Your task to perform on an android device: turn on sleep mode Image 0: 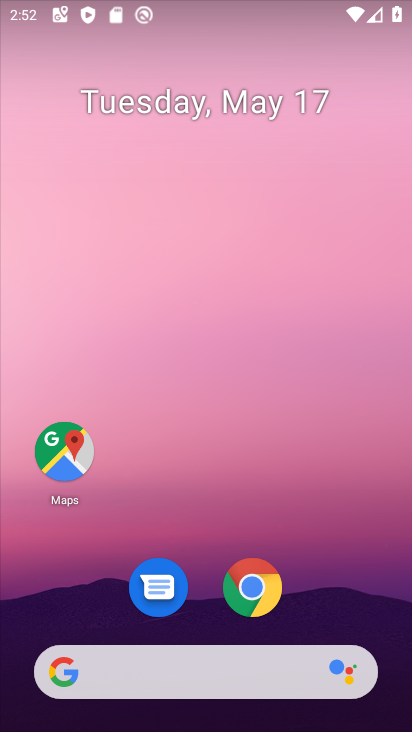
Step 0: drag from (334, 622) to (293, 1)
Your task to perform on an android device: turn on sleep mode Image 1: 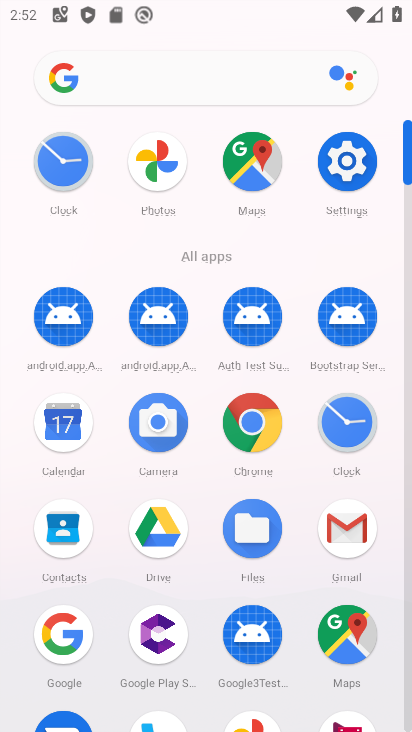
Step 1: click (355, 173)
Your task to perform on an android device: turn on sleep mode Image 2: 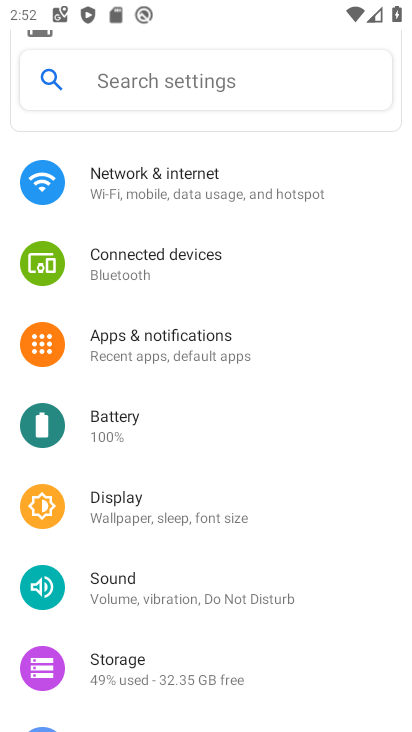
Step 2: task complete